Your task to perform on an android device: all mails in gmail Image 0: 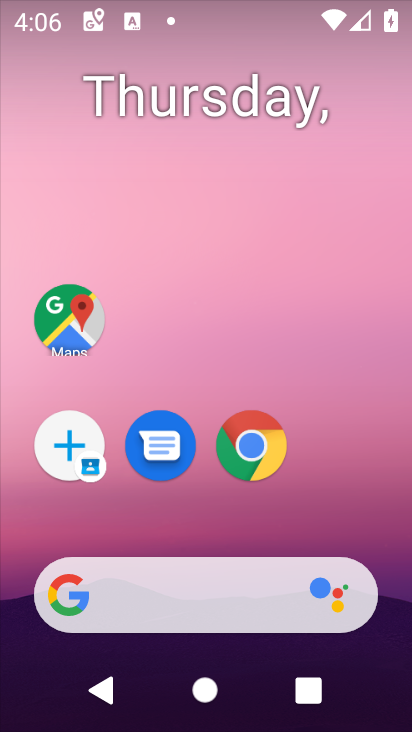
Step 0: drag from (358, 500) to (362, 92)
Your task to perform on an android device: all mails in gmail Image 1: 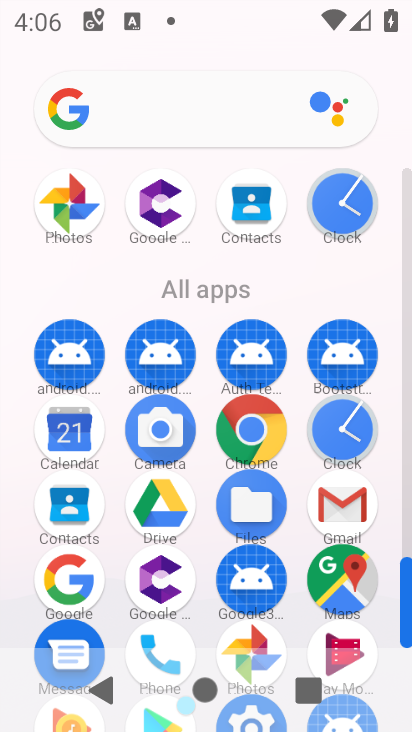
Step 1: click (349, 495)
Your task to perform on an android device: all mails in gmail Image 2: 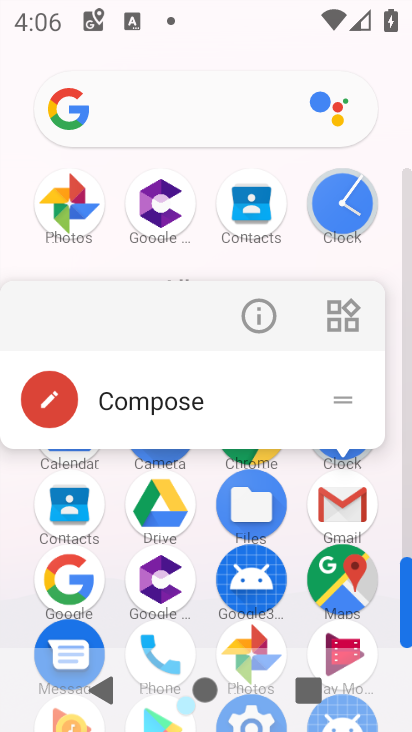
Step 2: click (355, 489)
Your task to perform on an android device: all mails in gmail Image 3: 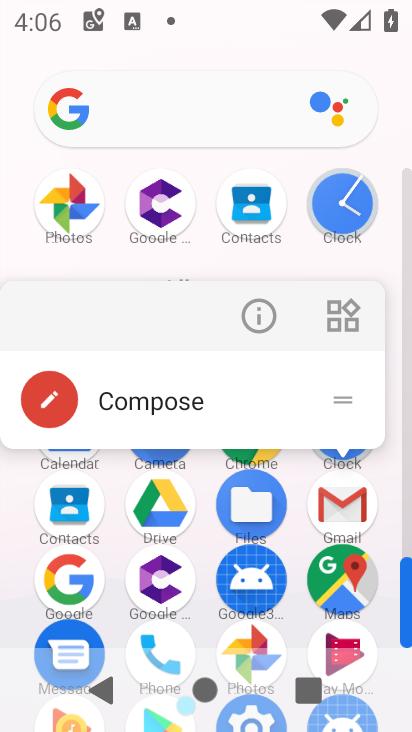
Step 3: click (356, 487)
Your task to perform on an android device: all mails in gmail Image 4: 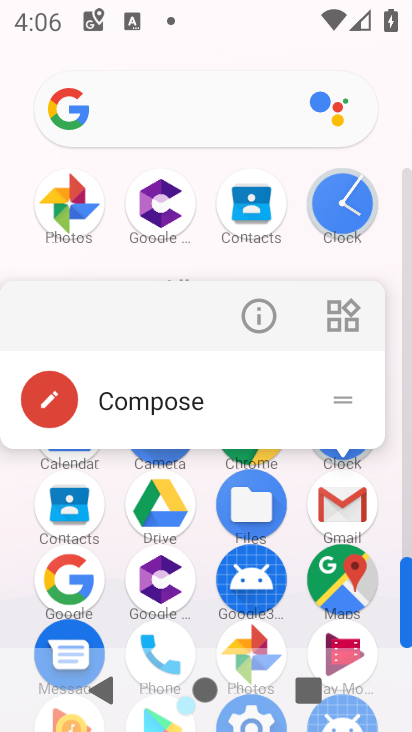
Step 4: click (344, 497)
Your task to perform on an android device: all mails in gmail Image 5: 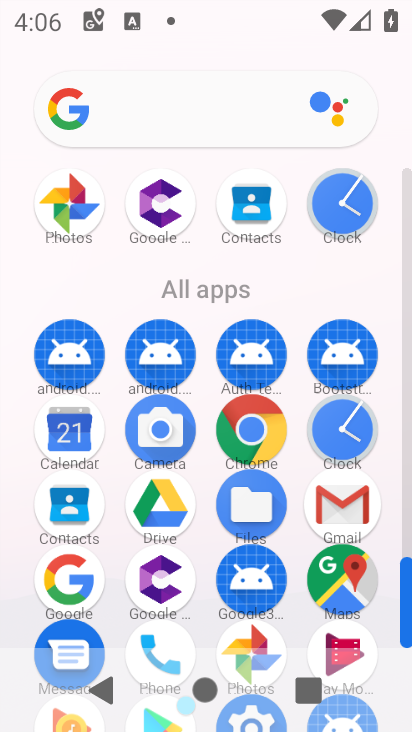
Step 5: click (344, 496)
Your task to perform on an android device: all mails in gmail Image 6: 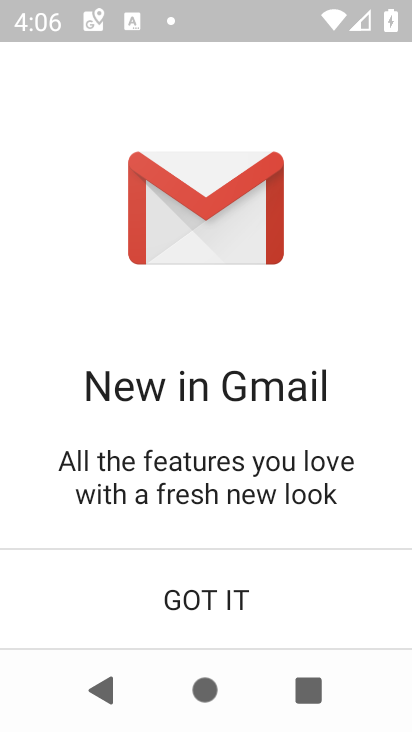
Step 6: click (178, 598)
Your task to perform on an android device: all mails in gmail Image 7: 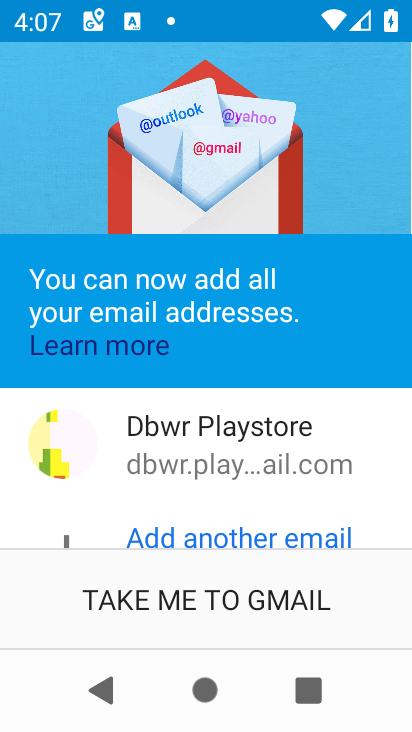
Step 7: click (190, 608)
Your task to perform on an android device: all mails in gmail Image 8: 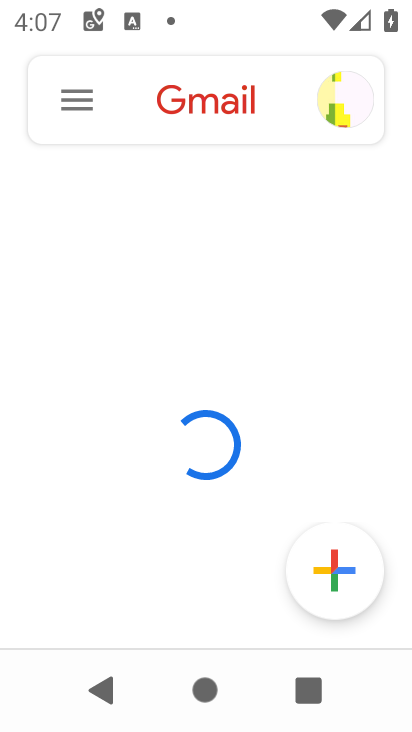
Step 8: click (82, 112)
Your task to perform on an android device: all mails in gmail Image 9: 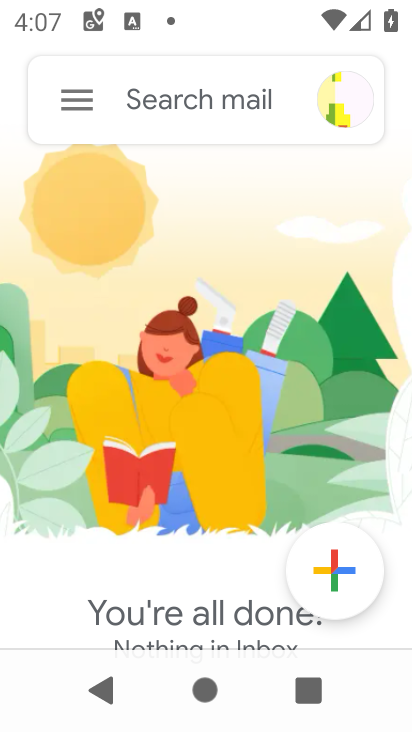
Step 9: click (83, 112)
Your task to perform on an android device: all mails in gmail Image 10: 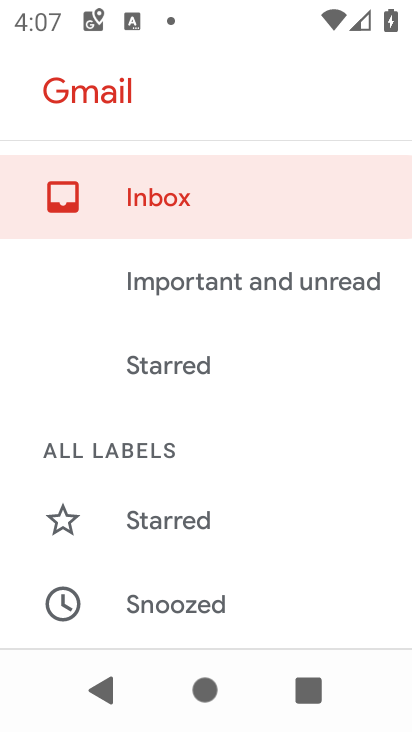
Step 10: drag from (209, 521) to (231, 136)
Your task to perform on an android device: all mails in gmail Image 11: 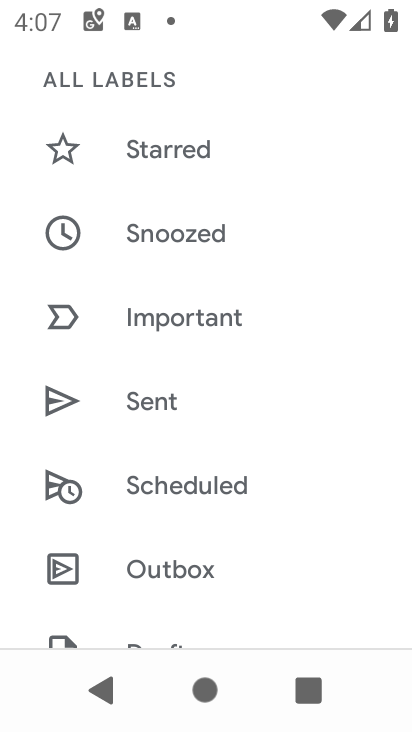
Step 11: drag from (288, 567) to (350, 164)
Your task to perform on an android device: all mails in gmail Image 12: 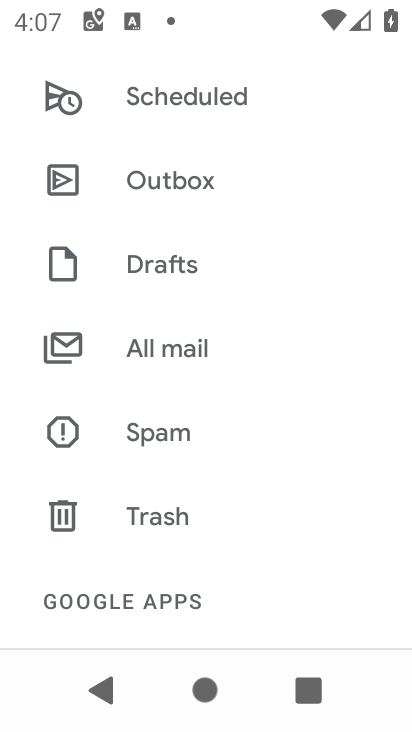
Step 12: click (212, 353)
Your task to perform on an android device: all mails in gmail Image 13: 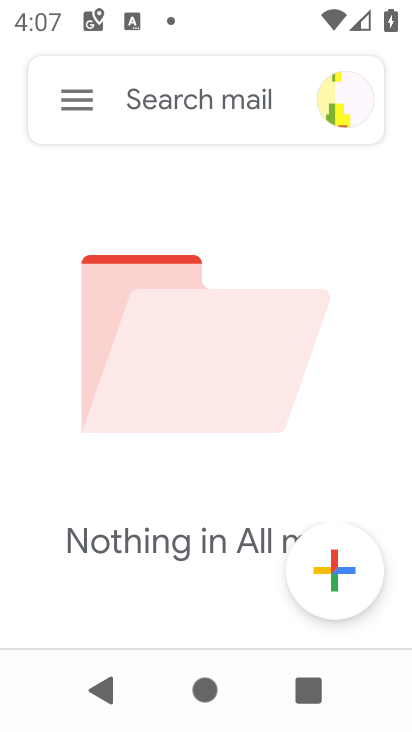
Step 13: task complete